Your task to perform on an android device: turn on the 12-hour format for clock Image 0: 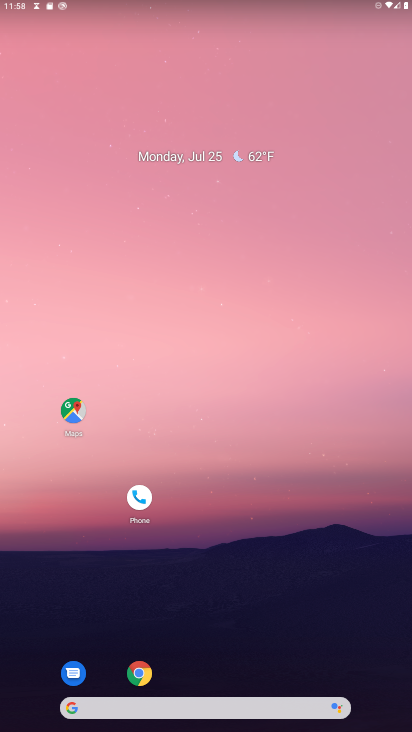
Step 0: press home button
Your task to perform on an android device: turn on the 12-hour format for clock Image 1: 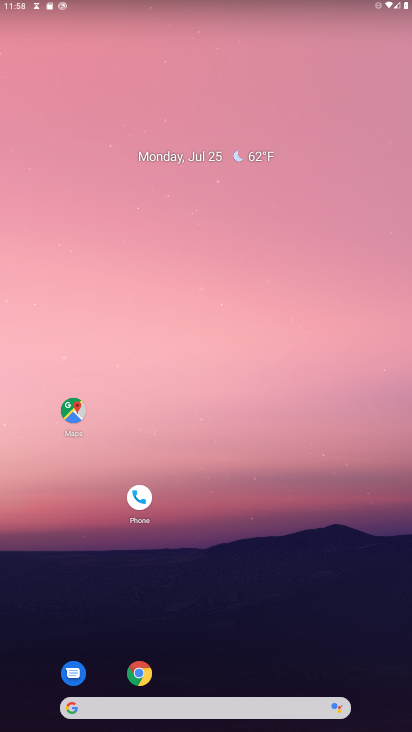
Step 1: drag from (246, 506) to (253, 133)
Your task to perform on an android device: turn on the 12-hour format for clock Image 2: 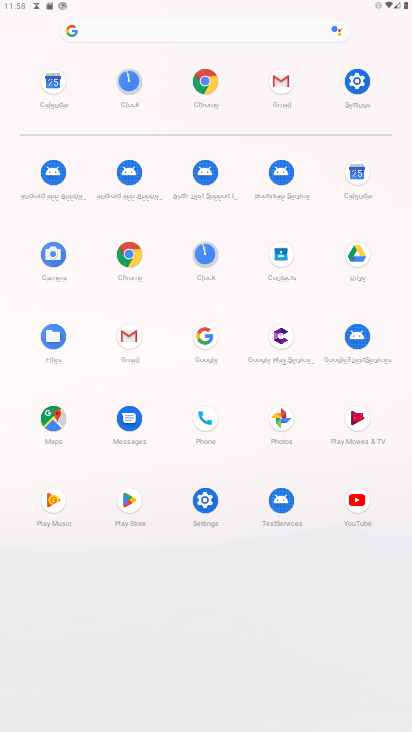
Step 2: click (208, 256)
Your task to perform on an android device: turn on the 12-hour format for clock Image 3: 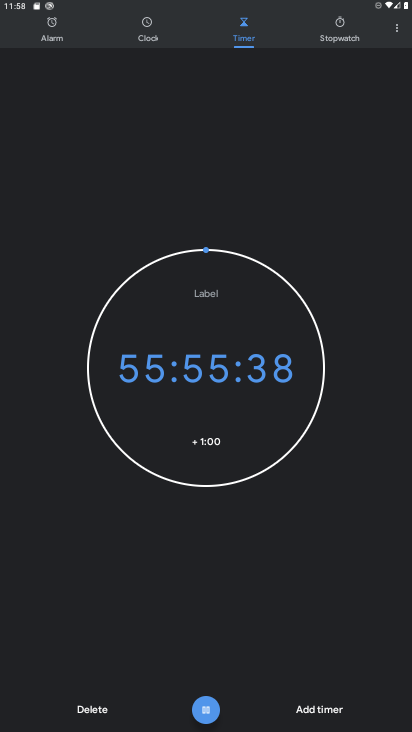
Step 3: click (390, 26)
Your task to perform on an android device: turn on the 12-hour format for clock Image 4: 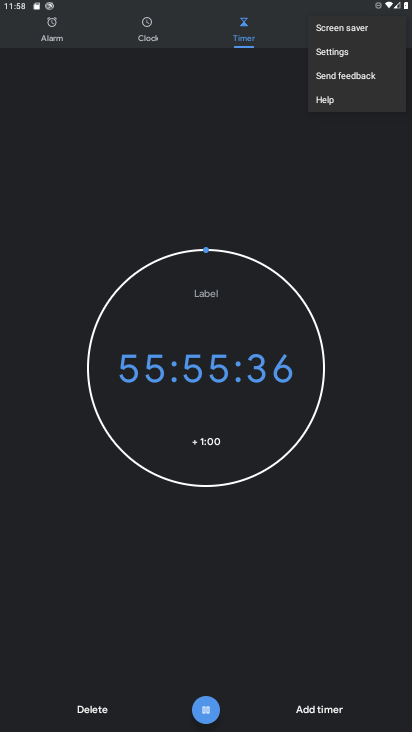
Step 4: click (358, 44)
Your task to perform on an android device: turn on the 12-hour format for clock Image 5: 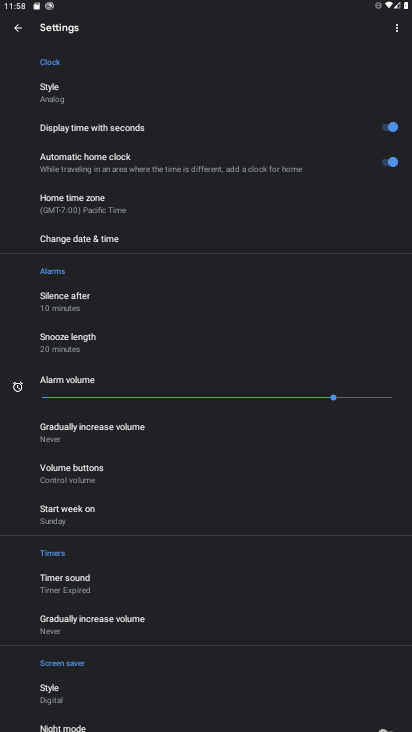
Step 5: click (59, 237)
Your task to perform on an android device: turn on the 12-hour format for clock Image 6: 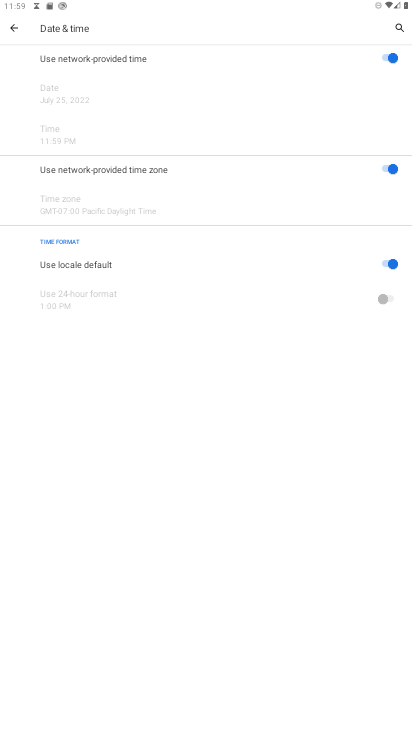
Step 6: task complete